Your task to perform on an android device: empty trash in the gmail app Image 0: 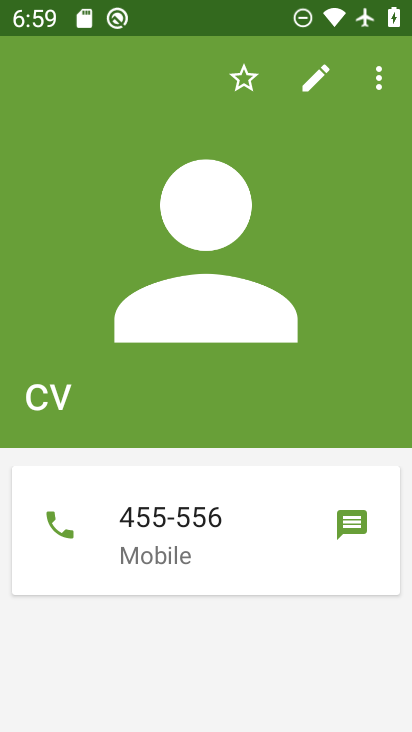
Step 0: press home button
Your task to perform on an android device: empty trash in the gmail app Image 1: 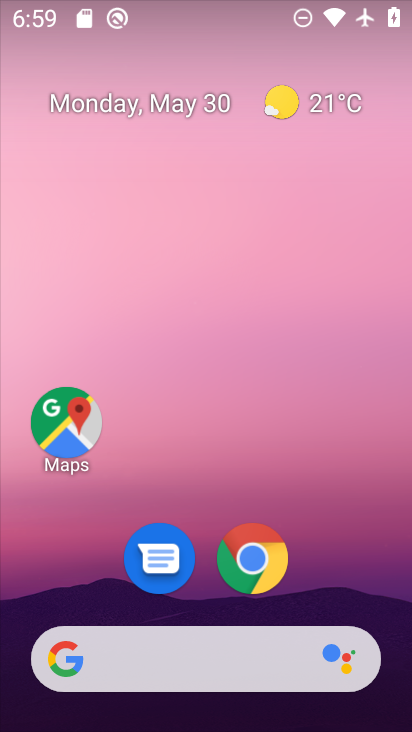
Step 1: click (190, 152)
Your task to perform on an android device: empty trash in the gmail app Image 2: 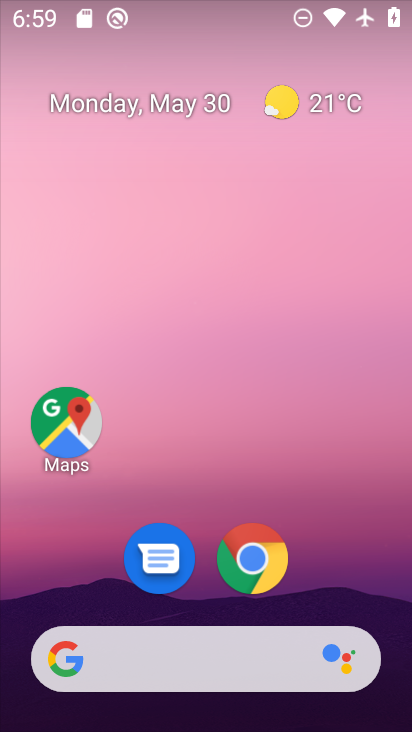
Step 2: drag from (280, 461) to (198, 90)
Your task to perform on an android device: empty trash in the gmail app Image 3: 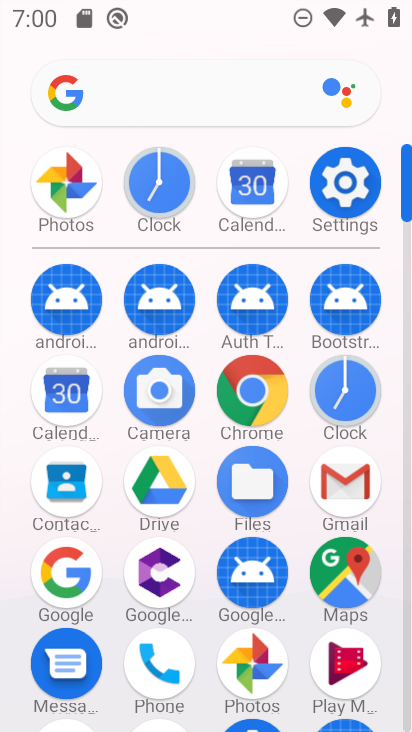
Step 3: click (349, 482)
Your task to perform on an android device: empty trash in the gmail app Image 4: 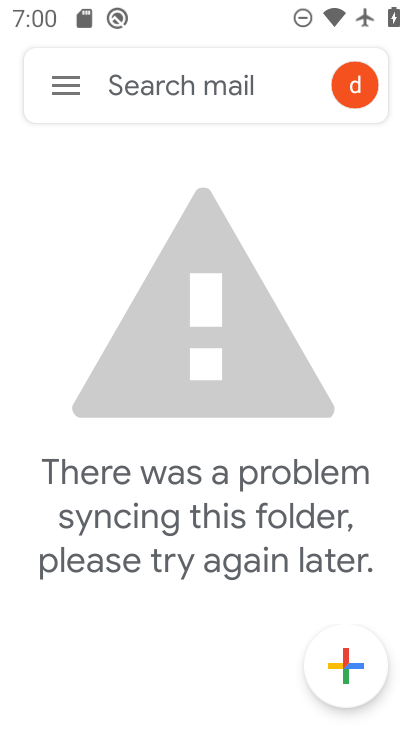
Step 4: click (61, 76)
Your task to perform on an android device: empty trash in the gmail app Image 5: 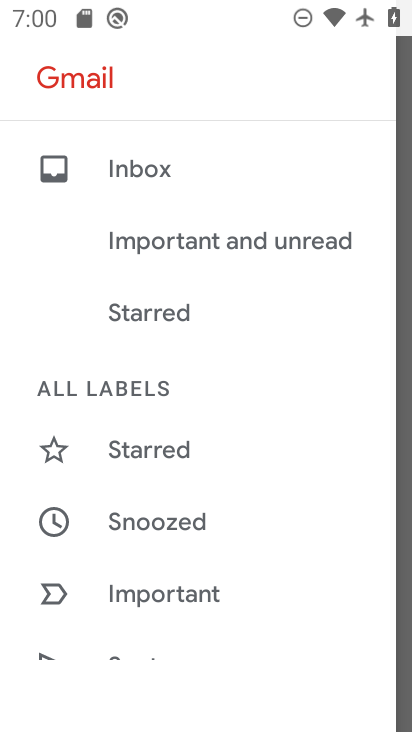
Step 5: drag from (212, 549) to (212, 279)
Your task to perform on an android device: empty trash in the gmail app Image 6: 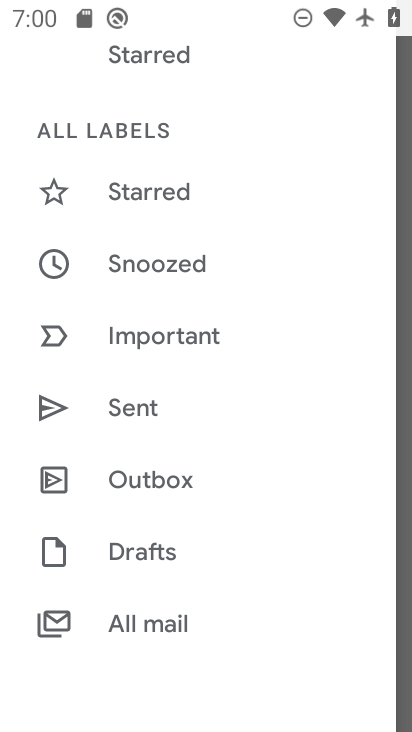
Step 6: drag from (215, 392) to (215, 138)
Your task to perform on an android device: empty trash in the gmail app Image 7: 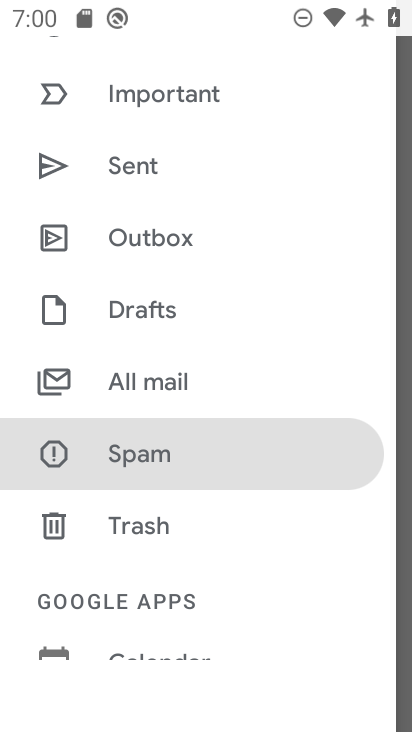
Step 7: click (124, 511)
Your task to perform on an android device: empty trash in the gmail app Image 8: 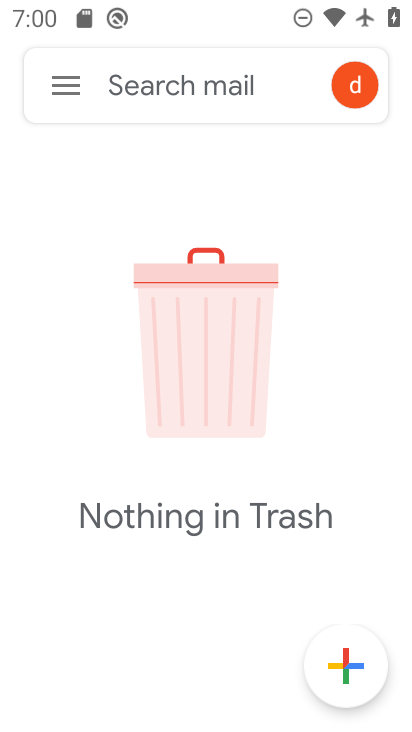
Step 8: task complete